Your task to perform on an android device: turn on showing notifications on the lock screen Image 0: 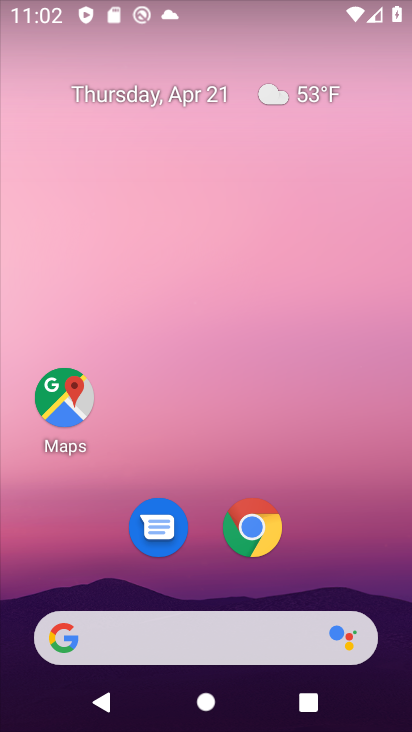
Step 0: drag from (358, 544) to (348, 168)
Your task to perform on an android device: turn on showing notifications on the lock screen Image 1: 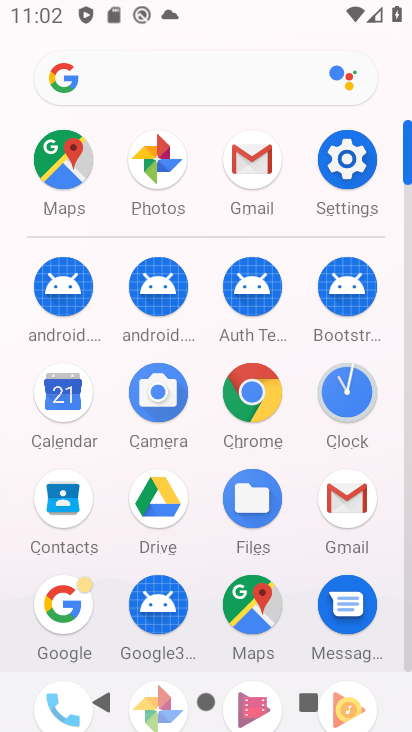
Step 1: click (343, 164)
Your task to perform on an android device: turn on showing notifications on the lock screen Image 2: 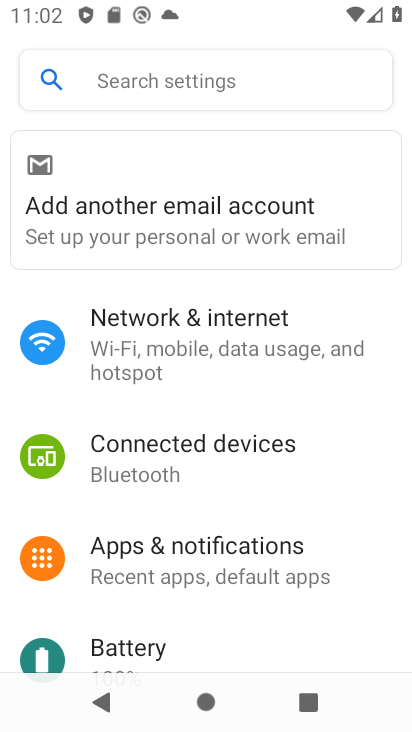
Step 2: drag from (351, 536) to (360, 375)
Your task to perform on an android device: turn on showing notifications on the lock screen Image 3: 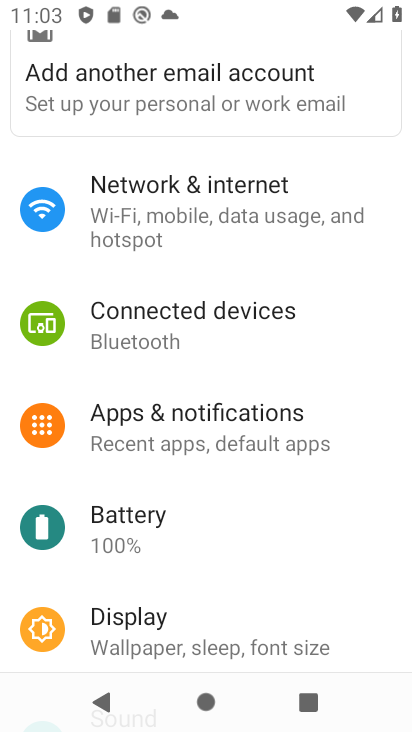
Step 3: drag from (350, 561) to (345, 383)
Your task to perform on an android device: turn on showing notifications on the lock screen Image 4: 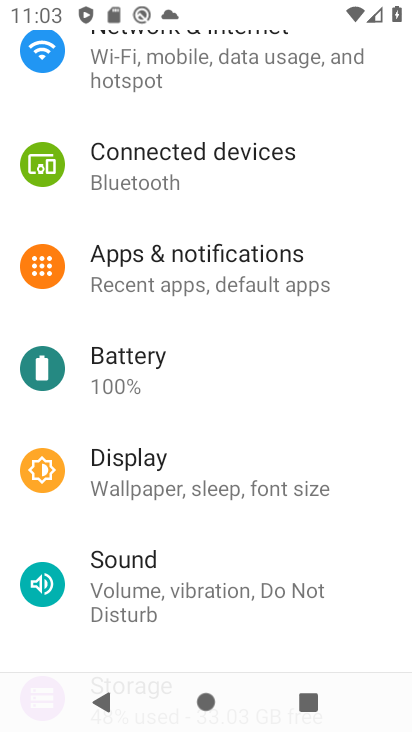
Step 4: click (273, 271)
Your task to perform on an android device: turn on showing notifications on the lock screen Image 5: 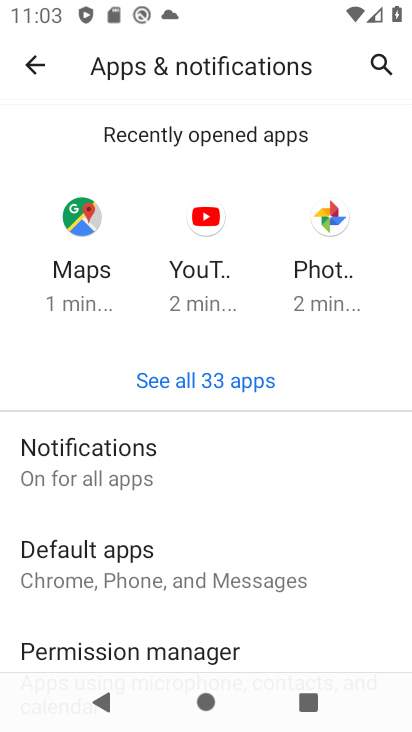
Step 5: click (128, 457)
Your task to perform on an android device: turn on showing notifications on the lock screen Image 6: 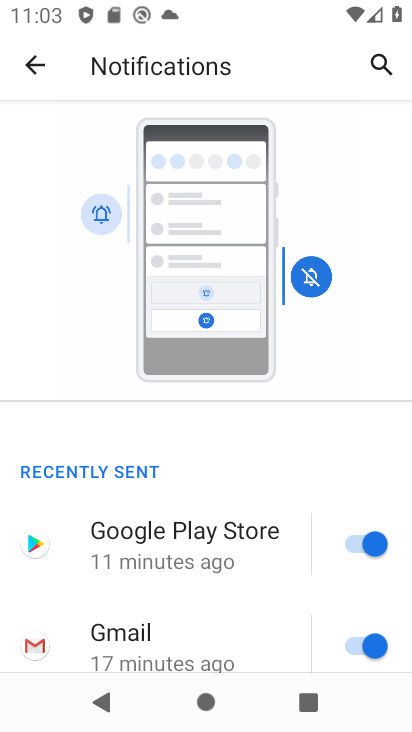
Step 6: drag from (285, 602) to (291, 423)
Your task to perform on an android device: turn on showing notifications on the lock screen Image 7: 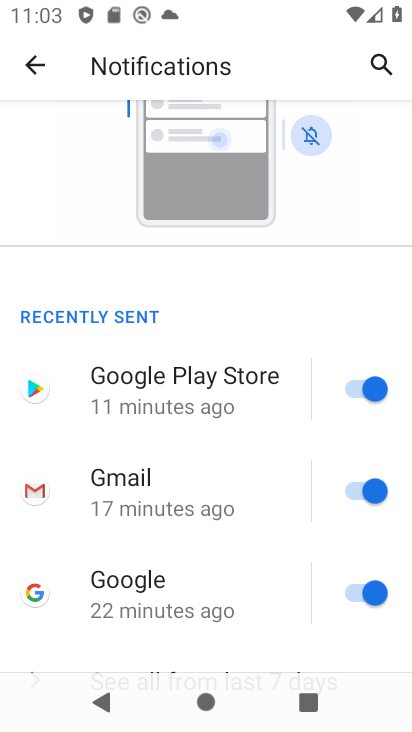
Step 7: drag from (270, 579) to (274, 412)
Your task to perform on an android device: turn on showing notifications on the lock screen Image 8: 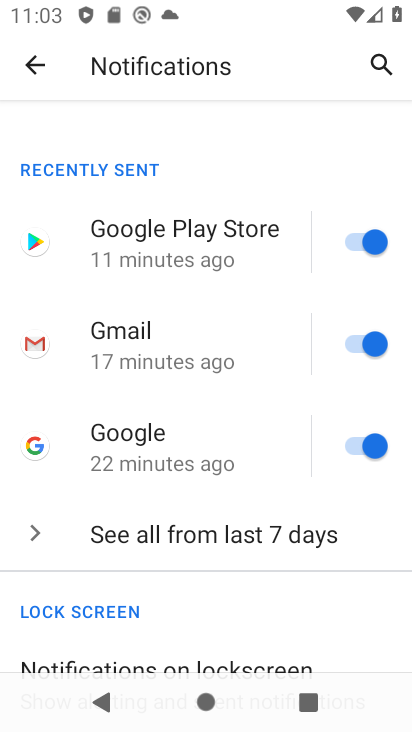
Step 8: drag from (276, 603) to (288, 403)
Your task to perform on an android device: turn on showing notifications on the lock screen Image 9: 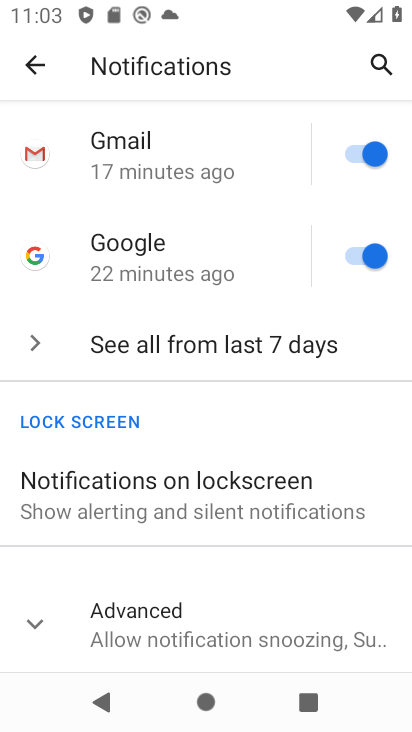
Step 9: click (244, 508)
Your task to perform on an android device: turn on showing notifications on the lock screen Image 10: 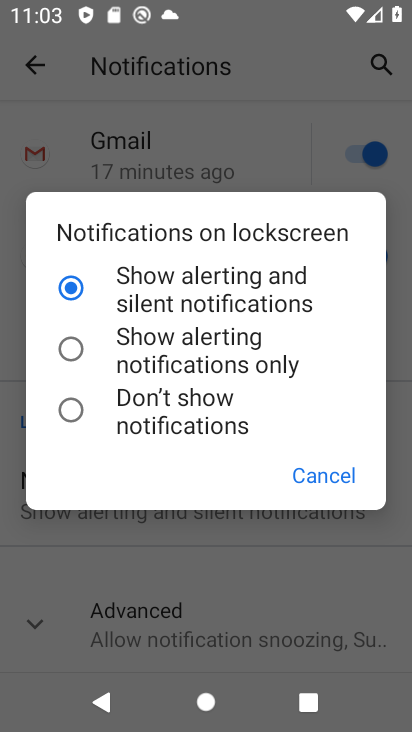
Step 10: task complete